Your task to perform on an android device: Open maps Image 0: 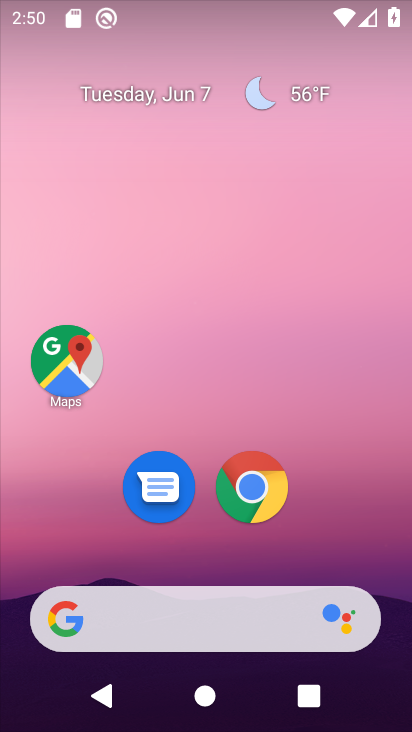
Step 0: press home button
Your task to perform on an android device: Open maps Image 1: 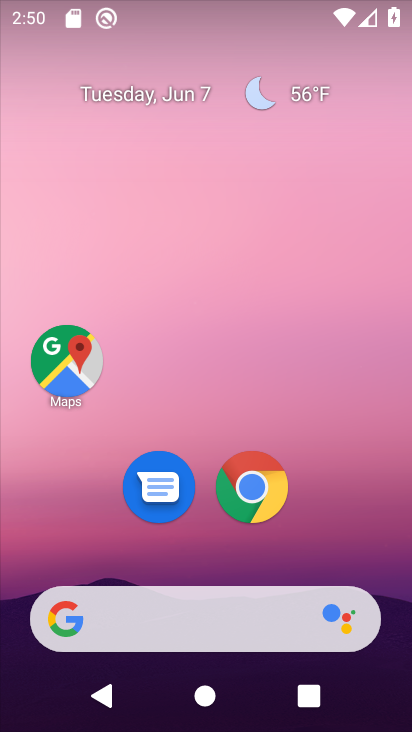
Step 1: click (80, 363)
Your task to perform on an android device: Open maps Image 2: 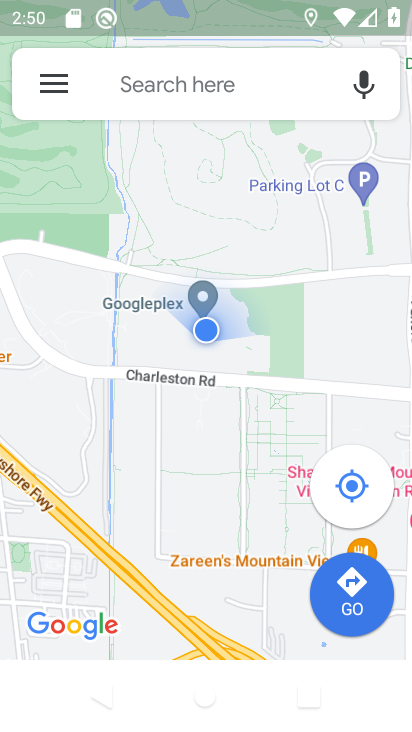
Step 2: task complete